Your task to perform on an android device: change the clock display to analog Image 0: 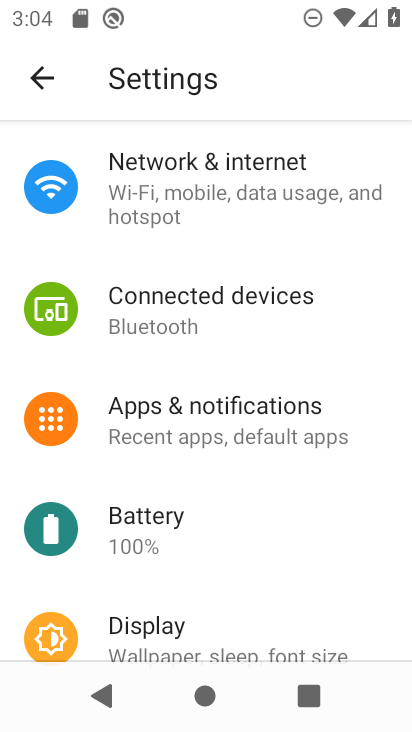
Step 0: drag from (240, 497) to (213, 169)
Your task to perform on an android device: change the clock display to analog Image 1: 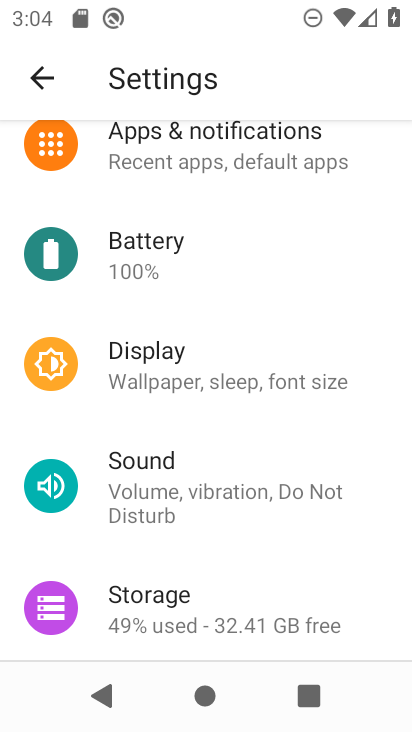
Step 1: drag from (212, 595) to (233, 226)
Your task to perform on an android device: change the clock display to analog Image 2: 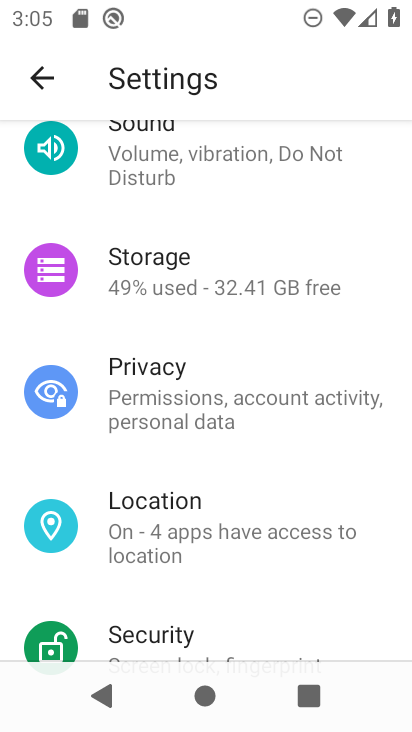
Step 2: press home button
Your task to perform on an android device: change the clock display to analog Image 3: 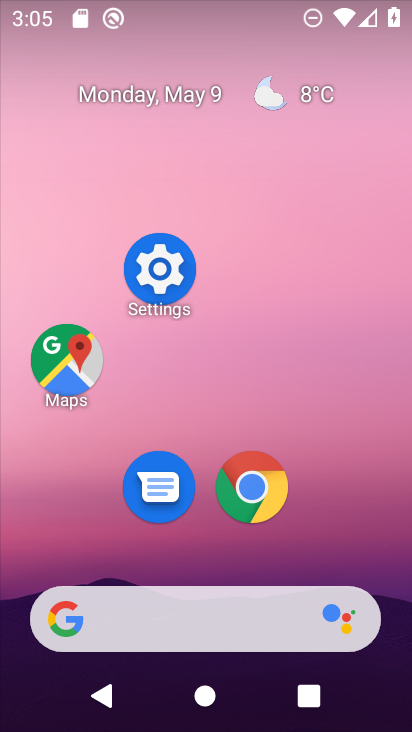
Step 3: drag from (366, 490) to (305, 2)
Your task to perform on an android device: change the clock display to analog Image 4: 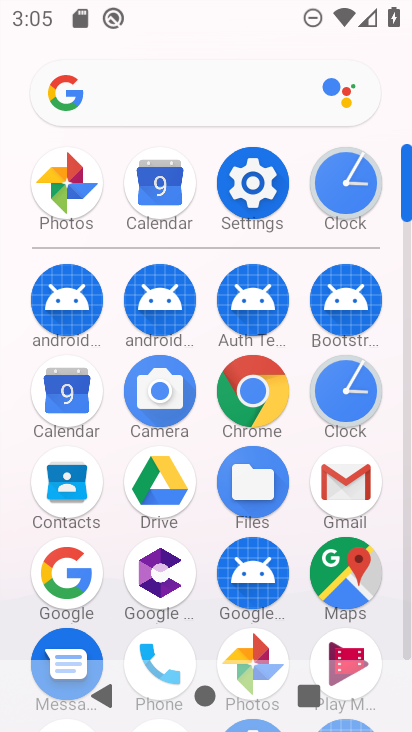
Step 4: click (325, 393)
Your task to perform on an android device: change the clock display to analog Image 5: 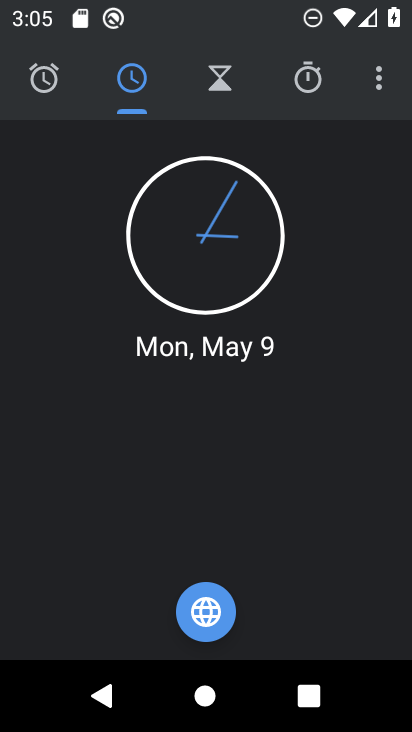
Step 5: click (375, 78)
Your task to perform on an android device: change the clock display to analog Image 6: 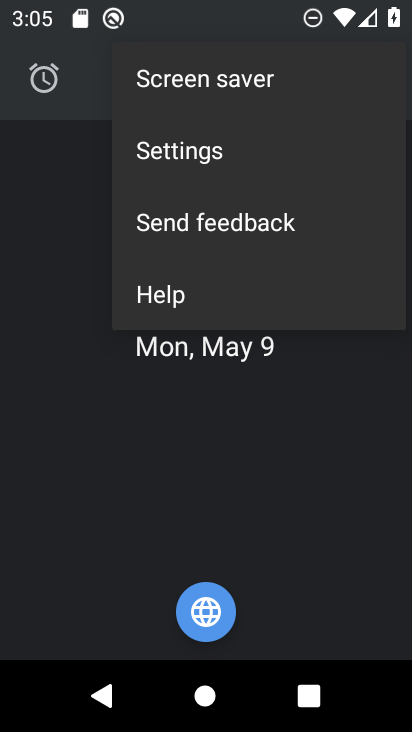
Step 6: click (182, 154)
Your task to perform on an android device: change the clock display to analog Image 7: 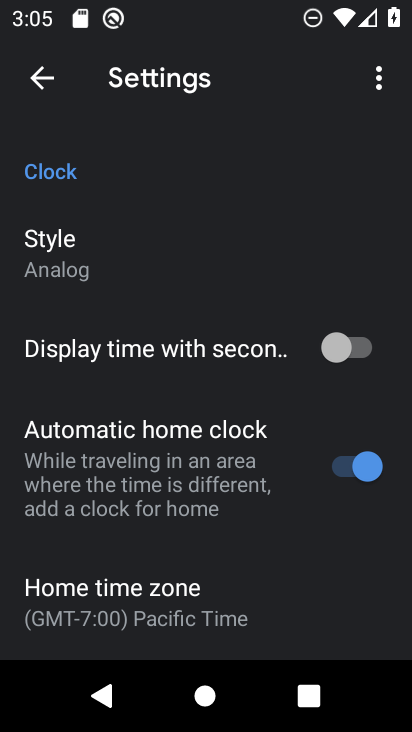
Step 7: task complete